Your task to perform on an android device: Open settings on Google Maps Image 0: 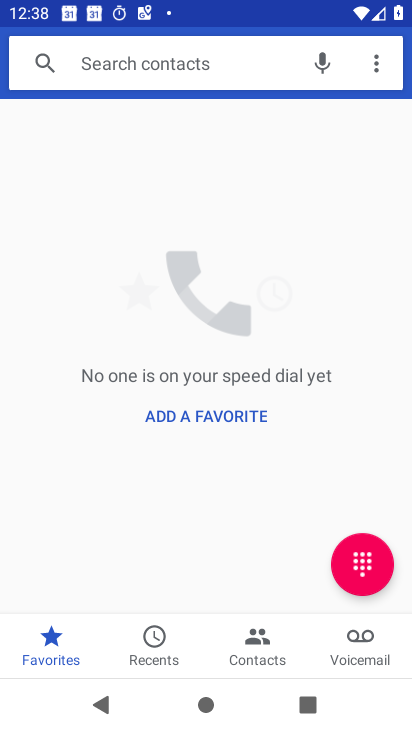
Step 0: press home button
Your task to perform on an android device: Open settings on Google Maps Image 1: 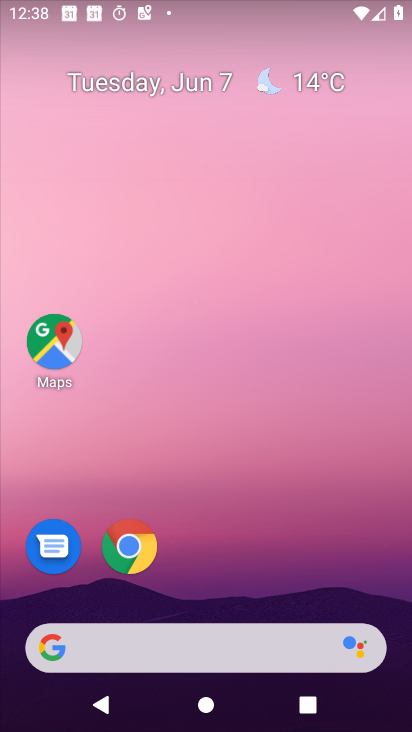
Step 1: click (58, 341)
Your task to perform on an android device: Open settings on Google Maps Image 2: 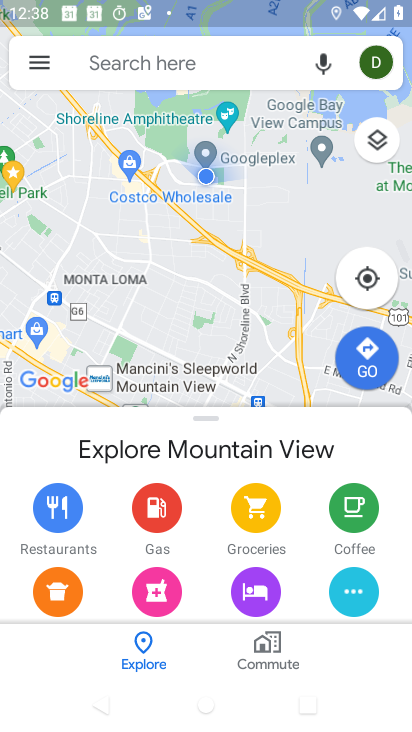
Step 2: click (21, 60)
Your task to perform on an android device: Open settings on Google Maps Image 3: 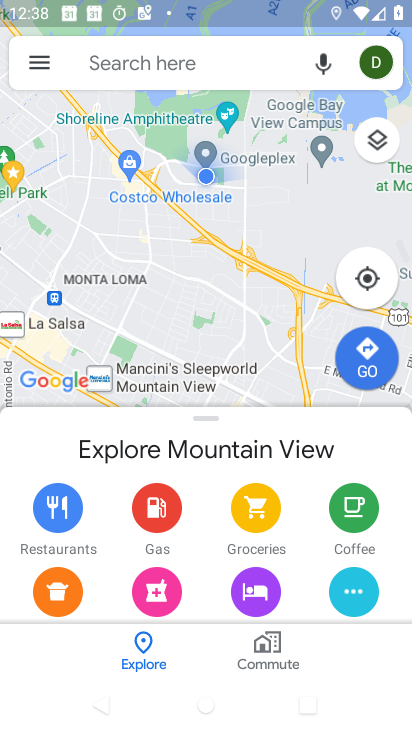
Step 3: click (44, 77)
Your task to perform on an android device: Open settings on Google Maps Image 4: 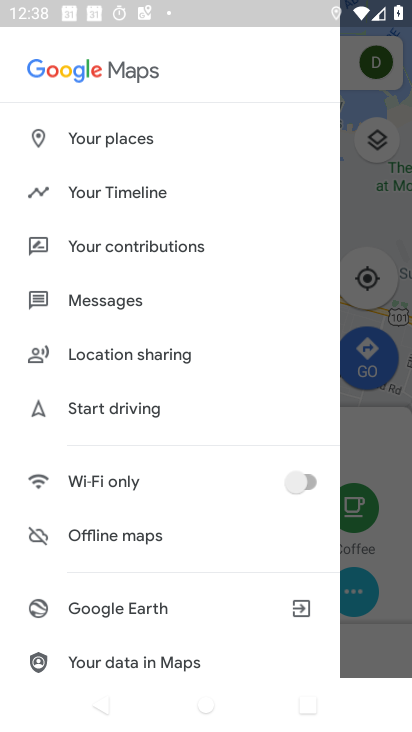
Step 4: drag from (110, 495) to (219, 129)
Your task to perform on an android device: Open settings on Google Maps Image 5: 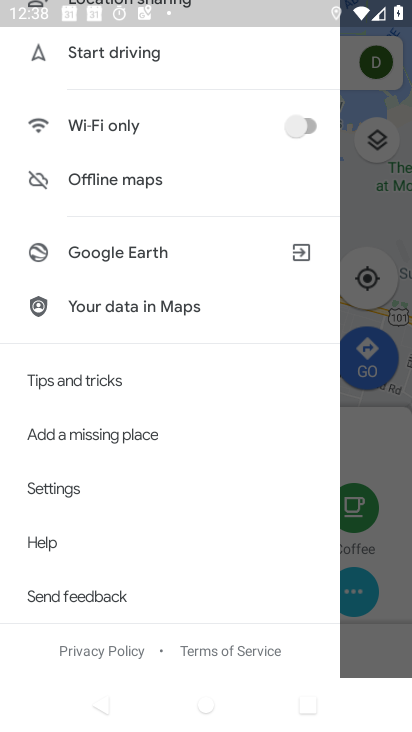
Step 5: click (65, 488)
Your task to perform on an android device: Open settings on Google Maps Image 6: 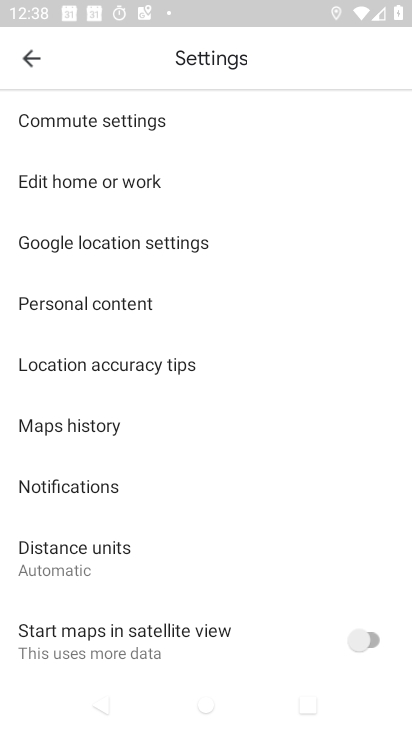
Step 6: task complete